Your task to perform on an android device: Open settings Image 0: 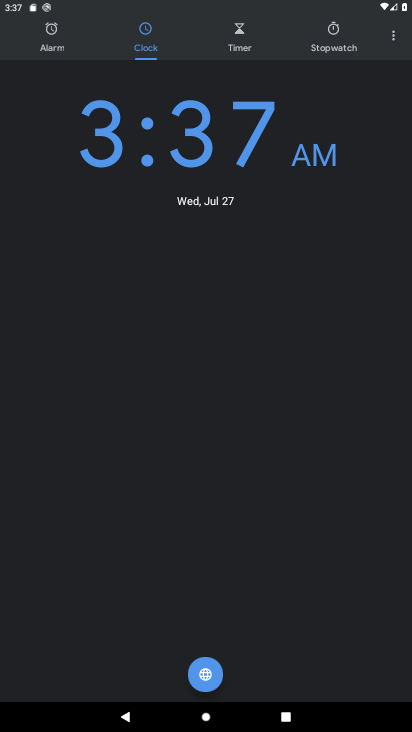
Step 0: press home button
Your task to perform on an android device: Open settings Image 1: 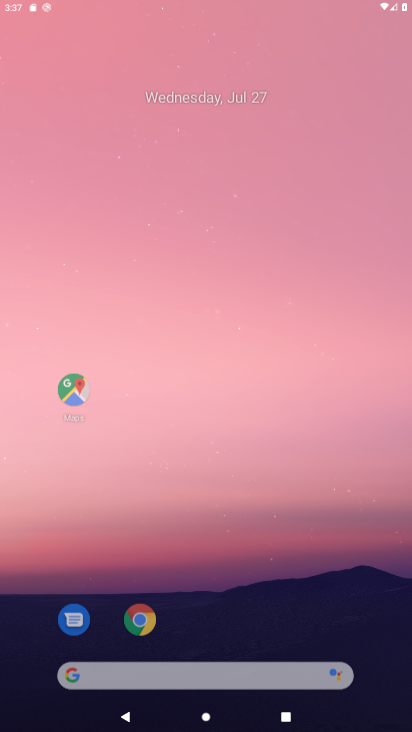
Step 1: drag from (348, 577) to (298, 162)
Your task to perform on an android device: Open settings Image 2: 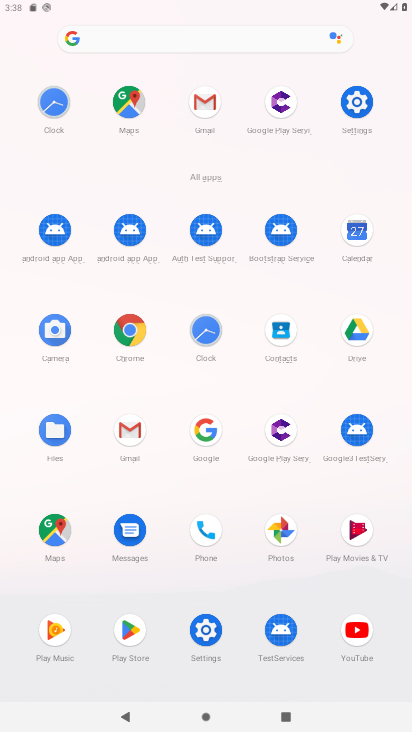
Step 2: click (224, 629)
Your task to perform on an android device: Open settings Image 3: 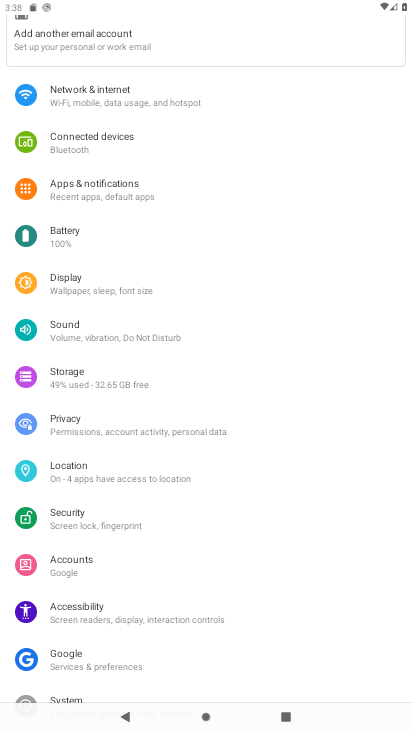
Step 3: task complete